Your task to perform on an android device: What is the news today? Image 0: 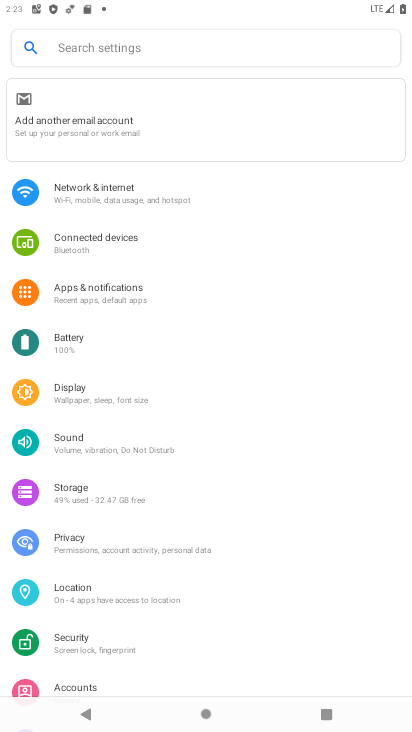
Step 0: press home button
Your task to perform on an android device: What is the news today? Image 1: 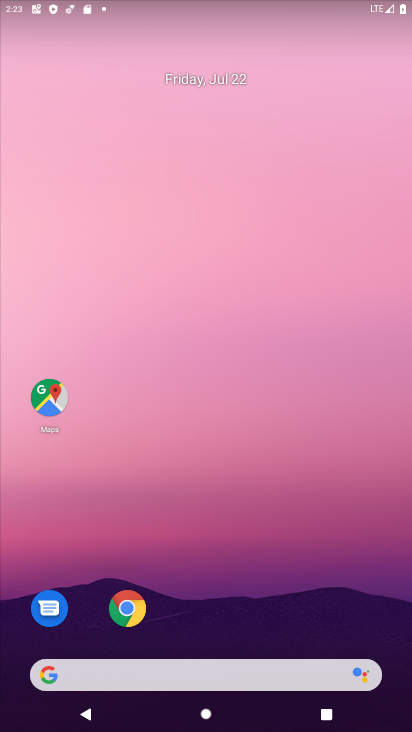
Step 1: task complete